Your task to perform on an android device: open a new tab in the chrome app Image 0: 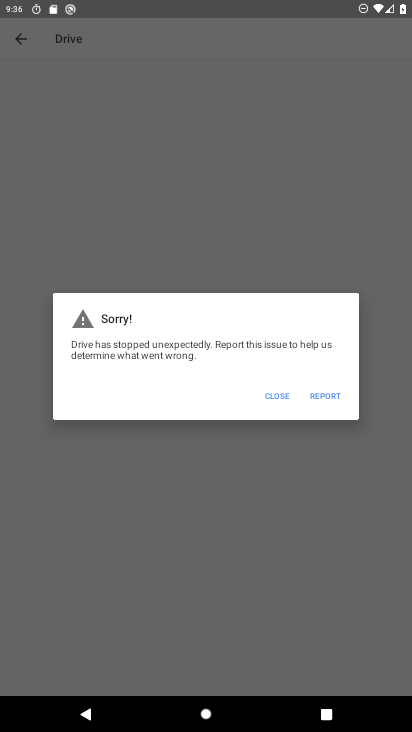
Step 0: press home button
Your task to perform on an android device: open a new tab in the chrome app Image 1: 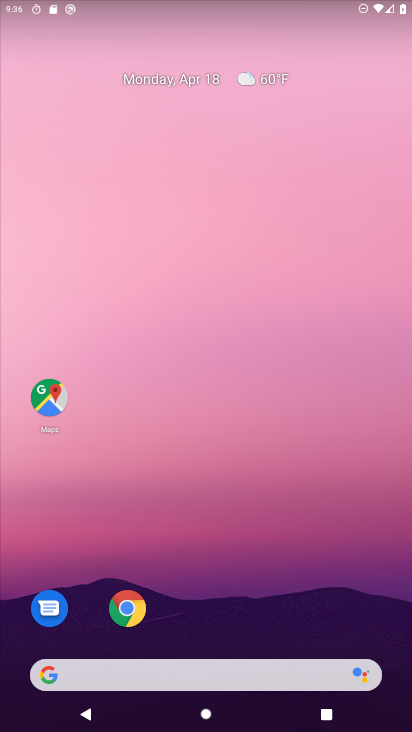
Step 1: click (122, 598)
Your task to perform on an android device: open a new tab in the chrome app Image 2: 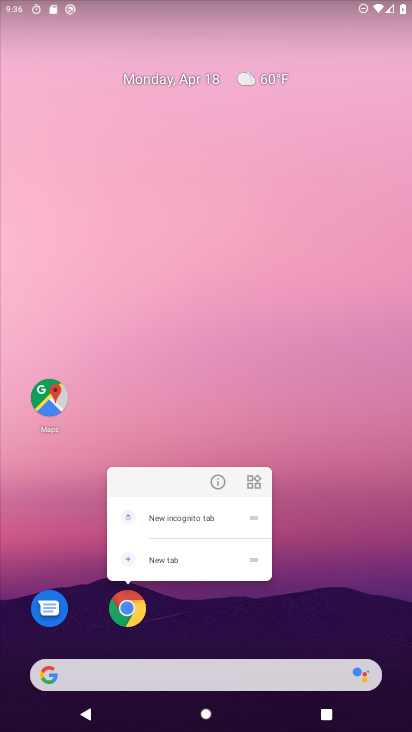
Step 2: click (122, 598)
Your task to perform on an android device: open a new tab in the chrome app Image 3: 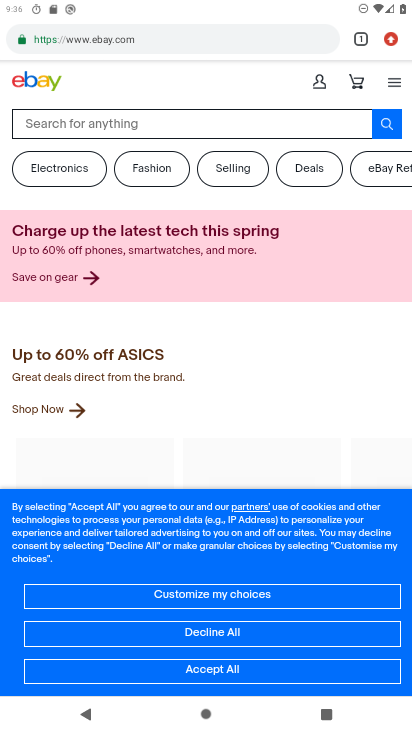
Step 3: drag from (290, 168) to (291, 274)
Your task to perform on an android device: open a new tab in the chrome app Image 4: 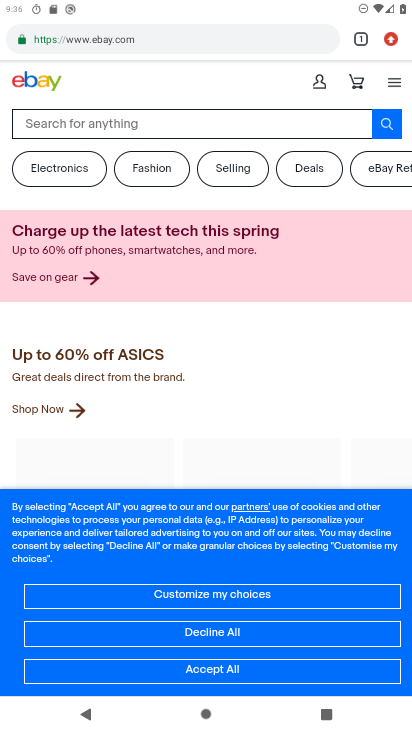
Step 4: click (390, 34)
Your task to perform on an android device: open a new tab in the chrome app Image 5: 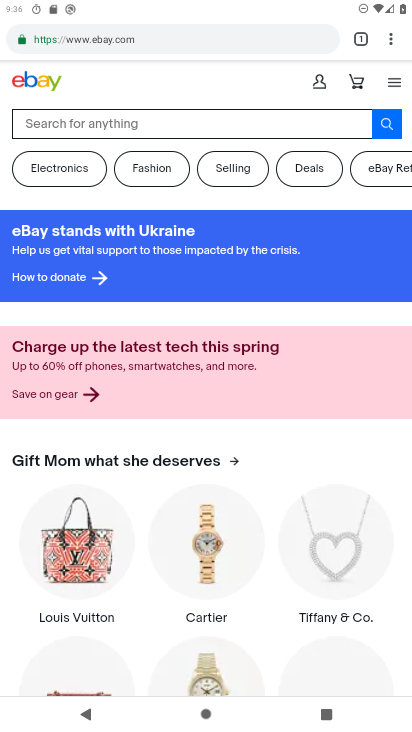
Step 5: click (389, 37)
Your task to perform on an android device: open a new tab in the chrome app Image 6: 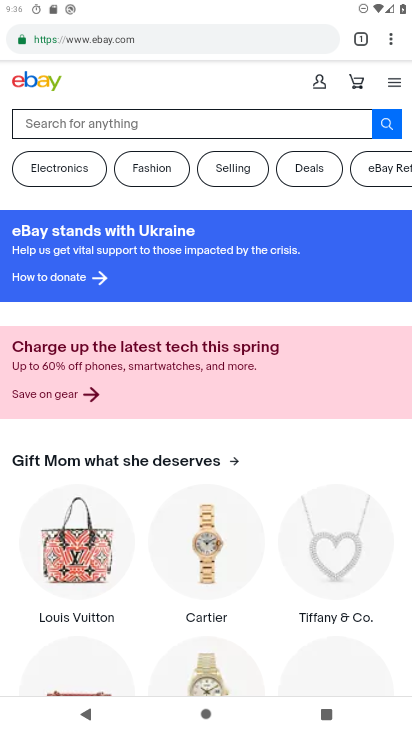
Step 6: click (389, 33)
Your task to perform on an android device: open a new tab in the chrome app Image 7: 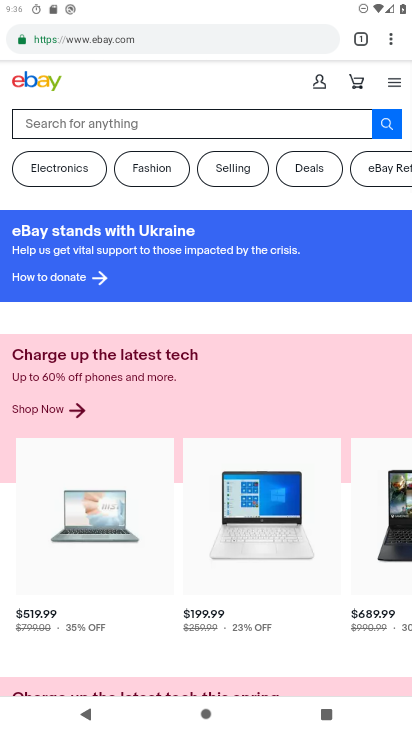
Step 7: click (389, 33)
Your task to perform on an android device: open a new tab in the chrome app Image 8: 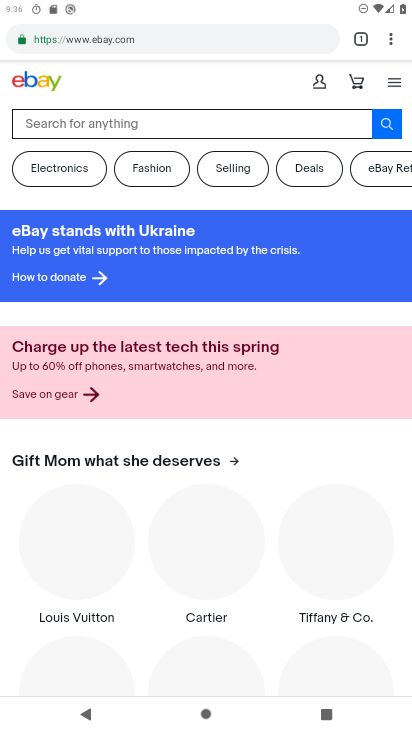
Step 8: click (389, 33)
Your task to perform on an android device: open a new tab in the chrome app Image 9: 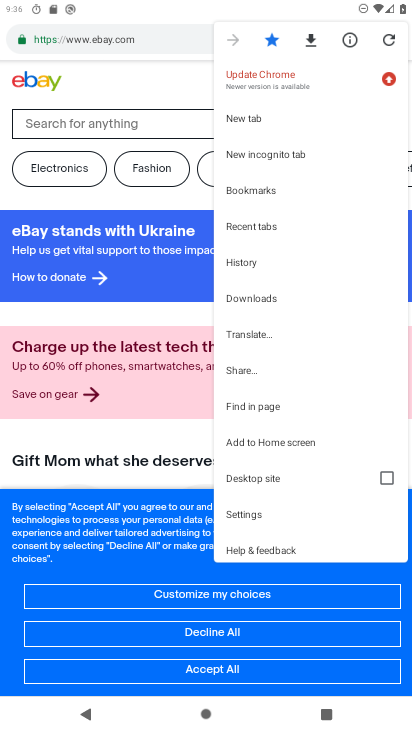
Step 9: click (249, 116)
Your task to perform on an android device: open a new tab in the chrome app Image 10: 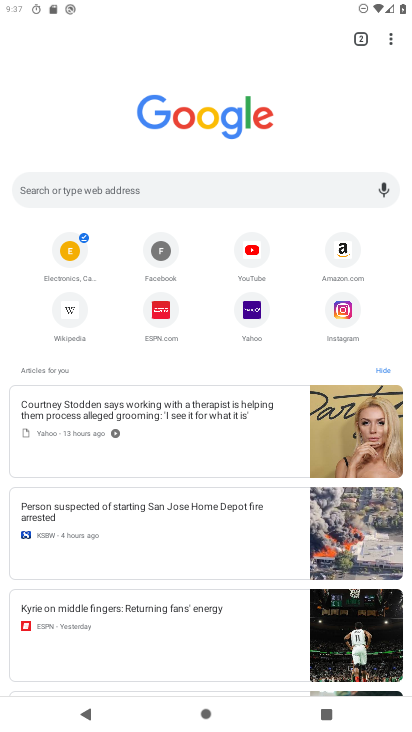
Step 10: task complete